Your task to perform on an android device: turn off improve location accuracy Image 0: 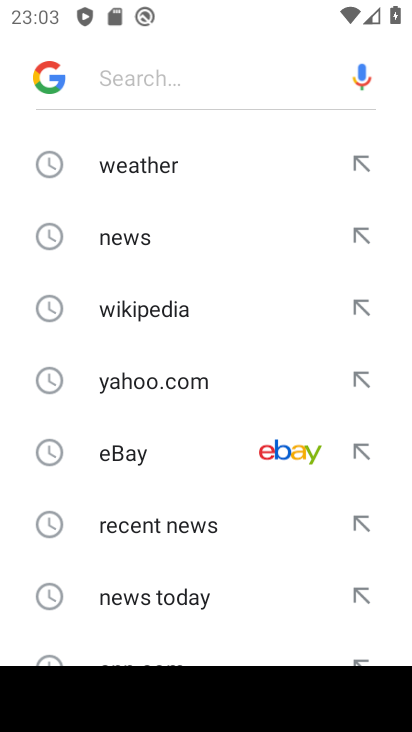
Step 0: press home button
Your task to perform on an android device: turn off improve location accuracy Image 1: 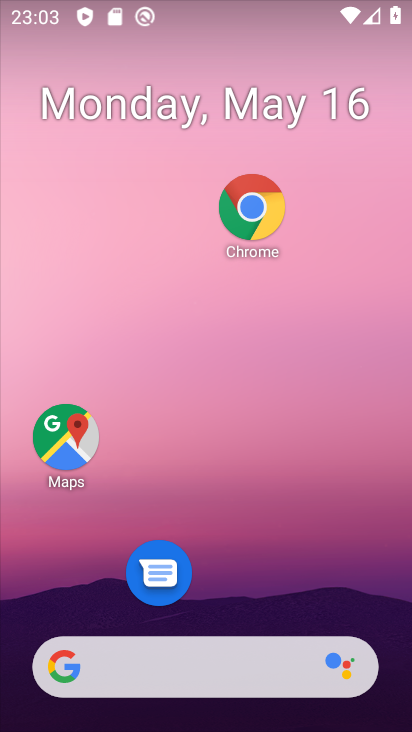
Step 1: drag from (182, 656) to (233, 174)
Your task to perform on an android device: turn off improve location accuracy Image 2: 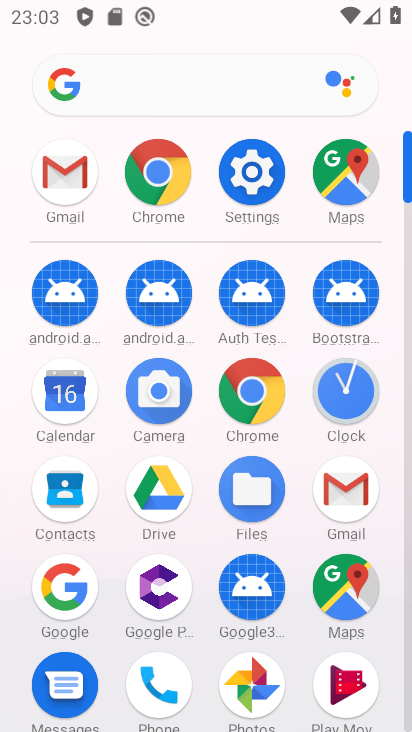
Step 2: click (255, 186)
Your task to perform on an android device: turn off improve location accuracy Image 3: 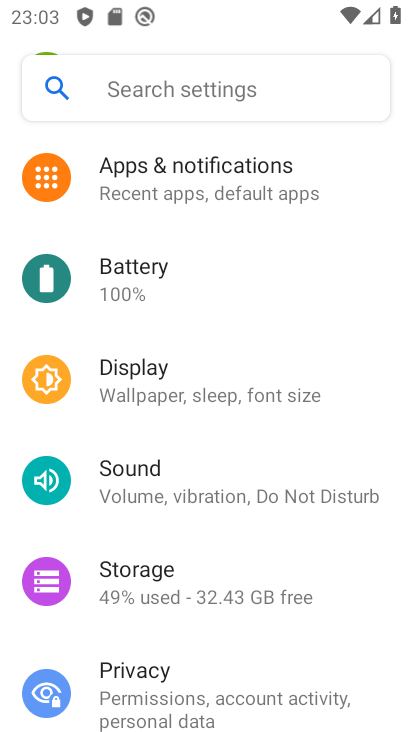
Step 3: drag from (207, 597) to (238, 97)
Your task to perform on an android device: turn off improve location accuracy Image 4: 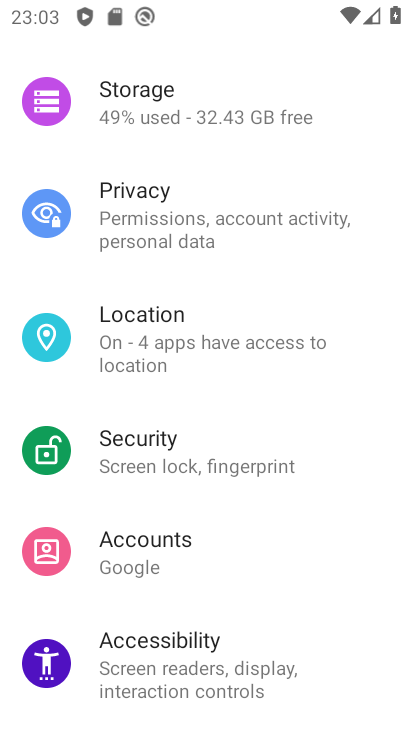
Step 4: click (185, 333)
Your task to perform on an android device: turn off improve location accuracy Image 5: 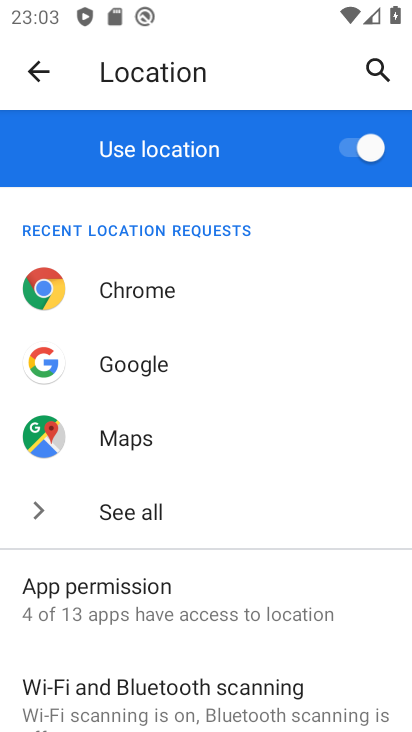
Step 5: drag from (262, 588) to (280, 144)
Your task to perform on an android device: turn off improve location accuracy Image 6: 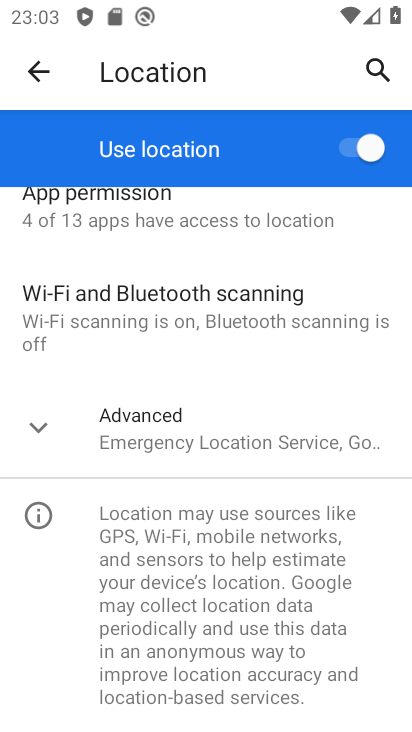
Step 6: click (213, 444)
Your task to perform on an android device: turn off improve location accuracy Image 7: 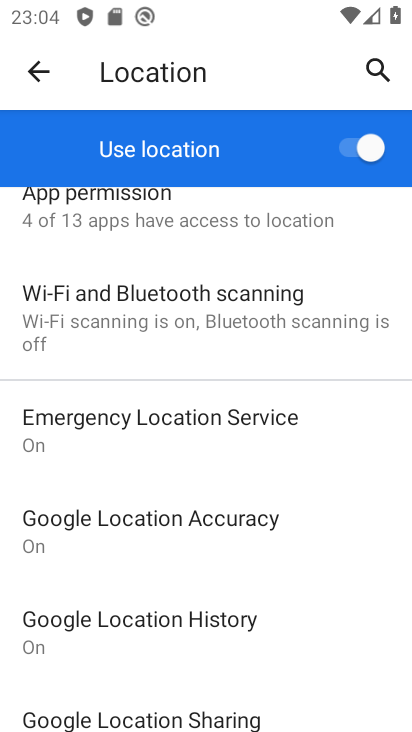
Step 7: click (225, 517)
Your task to perform on an android device: turn off improve location accuracy Image 8: 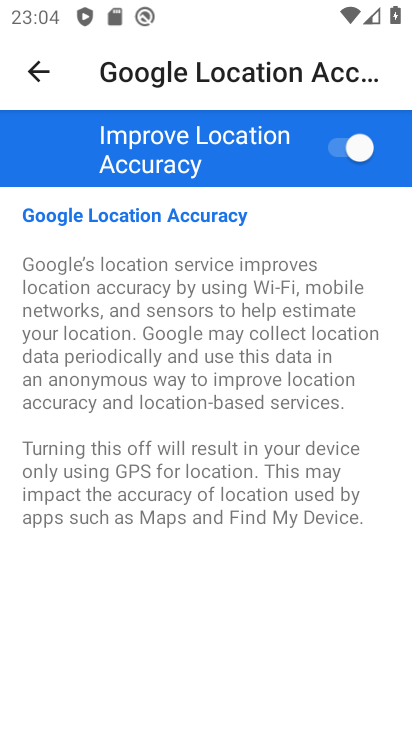
Step 8: click (347, 147)
Your task to perform on an android device: turn off improve location accuracy Image 9: 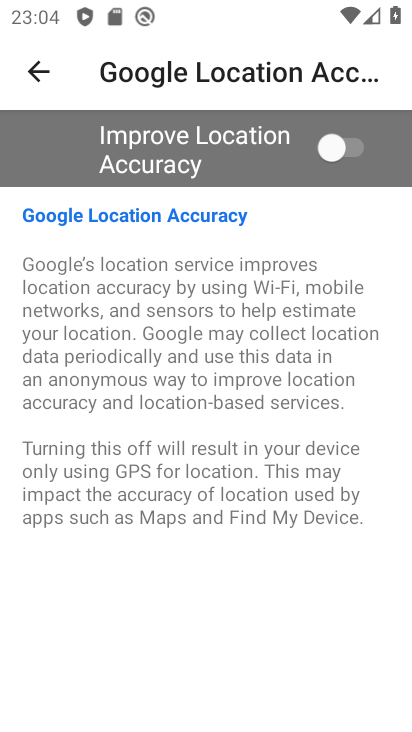
Step 9: task complete